Your task to perform on an android device: Open the stopwatch Image 0: 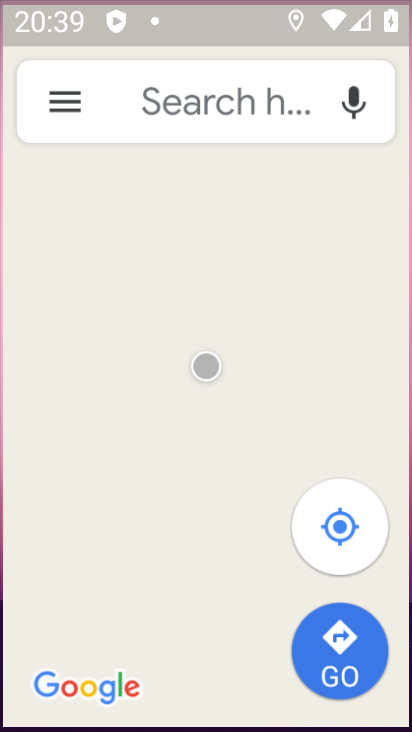
Step 0: drag from (192, 568) to (401, 394)
Your task to perform on an android device: Open the stopwatch Image 1: 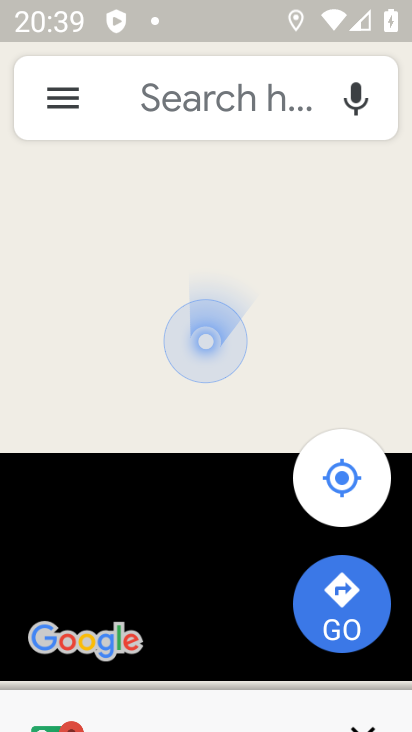
Step 1: press home button
Your task to perform on an android device: Open the stopwatch Image 2: 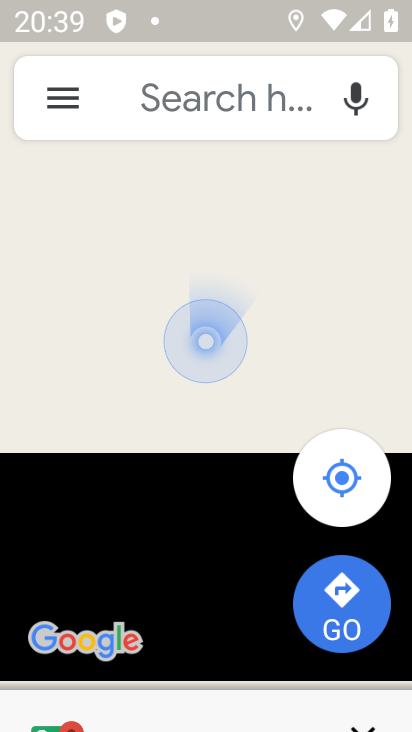
Step 2: click (372, 291)
Your task to perform on an android device: Open the stopwatch Image 3: 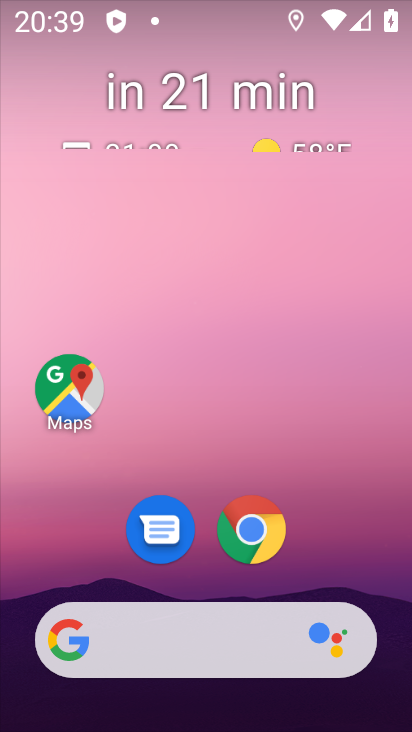
Step 3: drag from (201, 567) to (142, 381)
Your task to perform on an android device: Open the stopwatch Image 4: 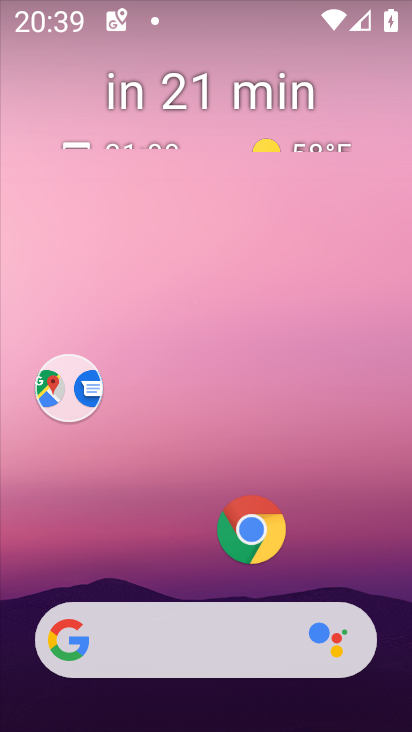
Step 4: drag from (164, 534) to (160, 27)
Your task to perform on an android device: Open the stopwatch Image 5: 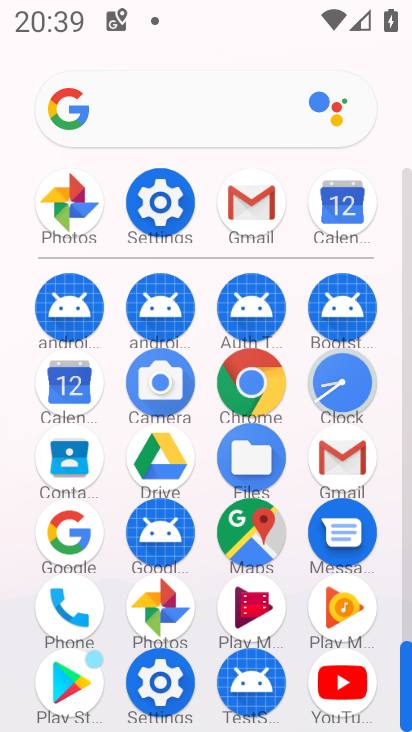
Step 5: click (340, 387)
Your task to perform on an android device: Open the stopwatch Image 6: 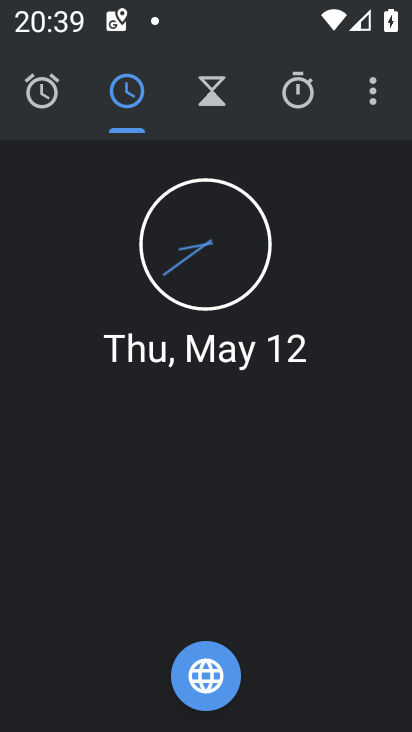
Step 6: click (301, 89)
Your task to perform on an android device: Open the stopwatch Image 7: 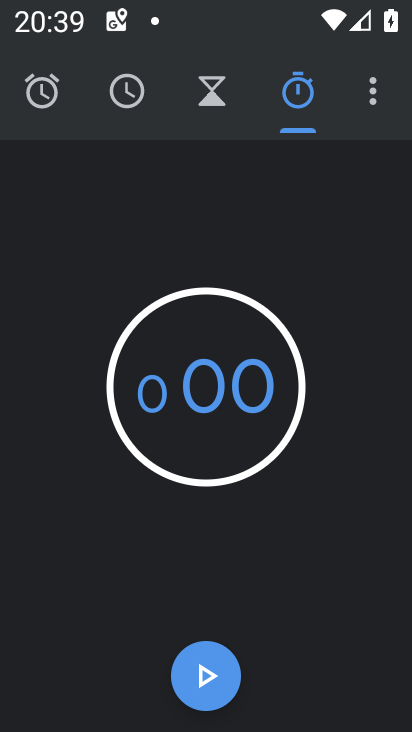
Step 7: click (207, 663)
Your task to perform on an android device: Open the stopwatch Image 8: 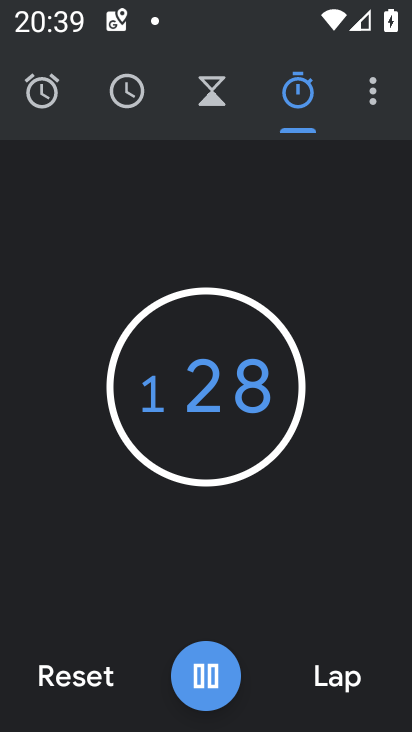
Step 8: task complete